Your task to perform on an android device: Open Wikipedia Image 0: 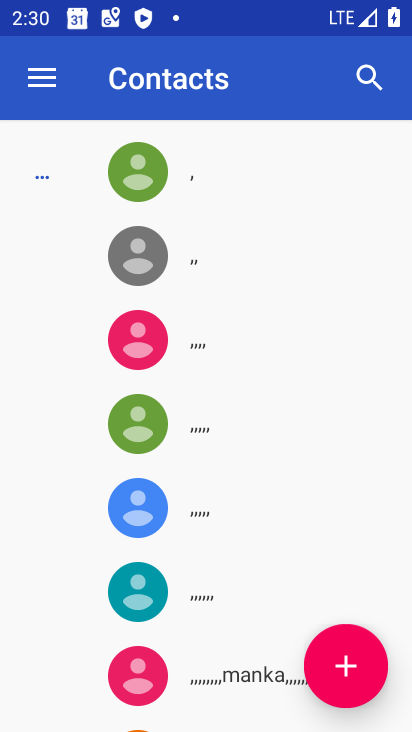
Step 0: press home button
Your task to perform on an android device: Open Wikipedia Image 1: 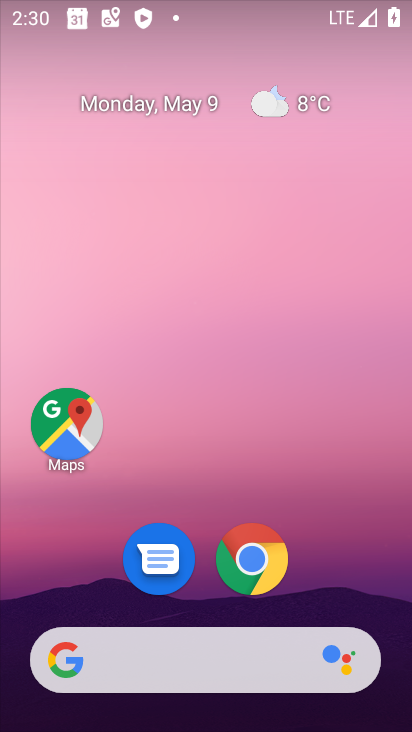
Step 1: click (253, 555)
Your task to perform on an android device: Open Wikipedia Image 2: 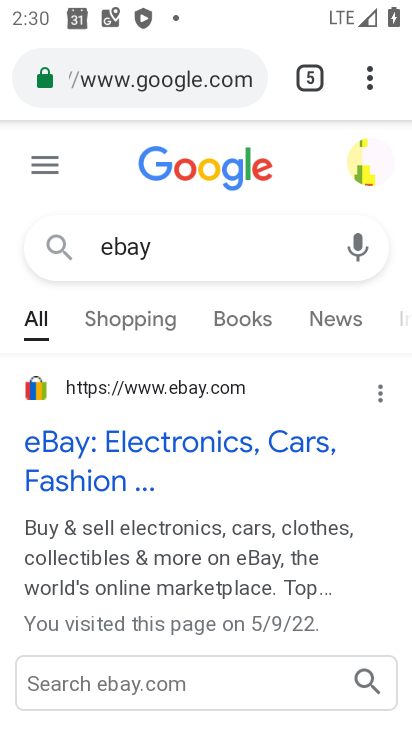
Step 2: click (371, 75)
Your task to perform on an android device: Open Wikipedia Image 3: 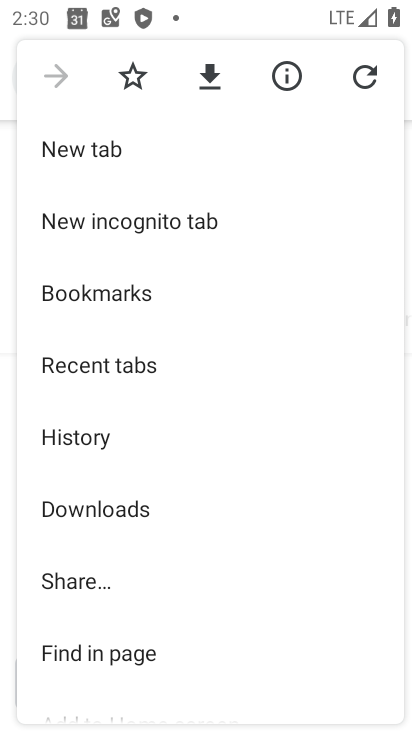
Step 3: click (83, 149)
Your task to perform on an android device: Open Wikipedia Image 4: 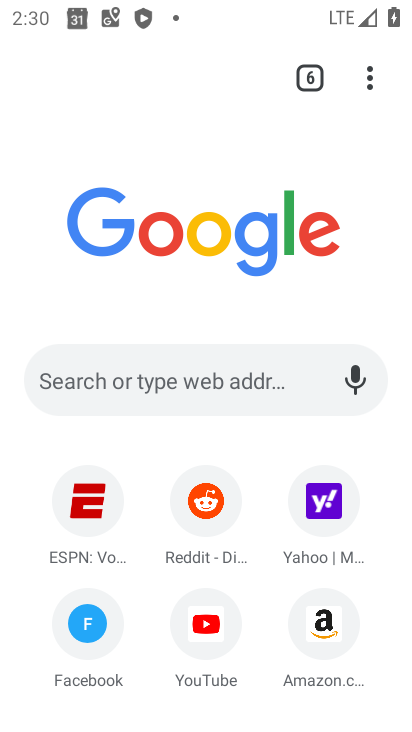
Step 4: drag from (152, 587) to (151, 347)
Your task to perform on an android device: Open Wikipedia Image 5: 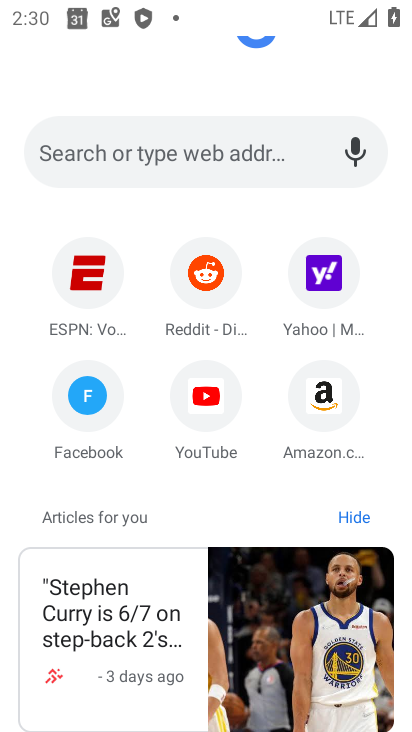
Step 5: click (178, 149)
Your task to perform on an android device: Open Wikipedia Image 6: 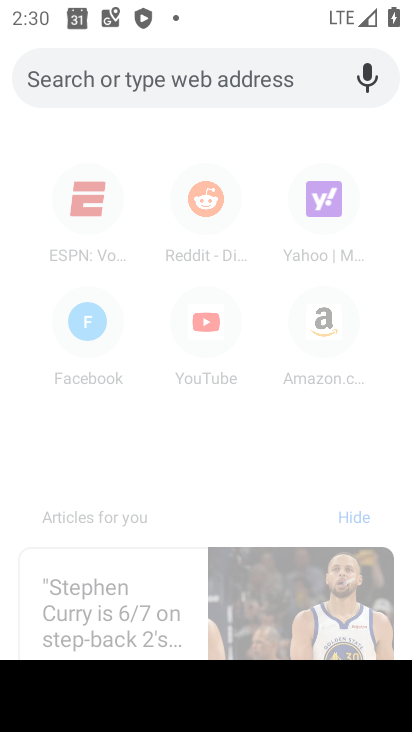
Step 6: type "wikipedia"
Your task to perform on an android device: Open Wikipedia Image 7: 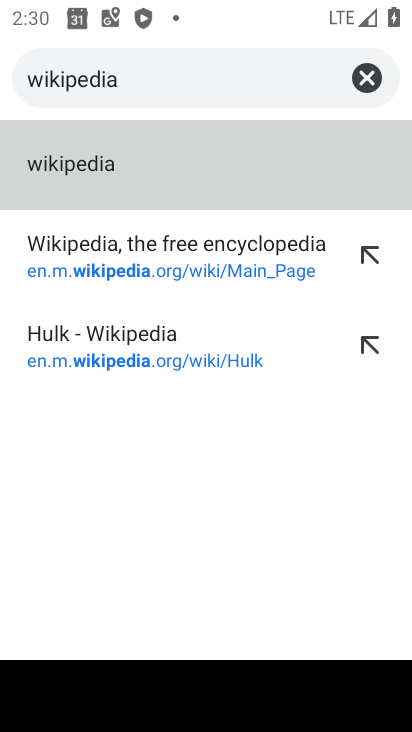
Step 7: click (93, 163)
Your task to perform on an android device: Open Wikipedia Image 8: 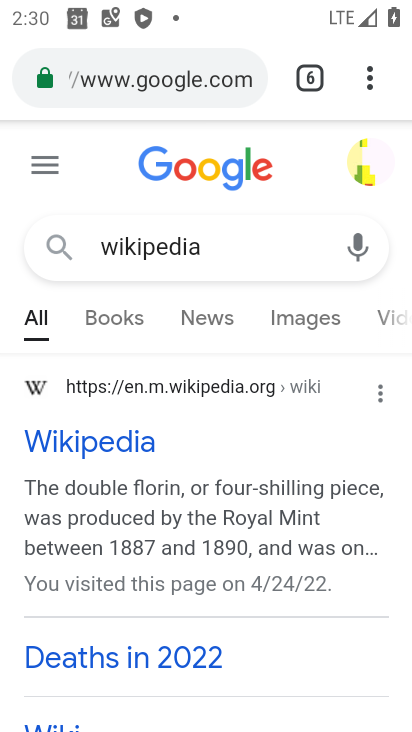
Step 8: click (100, 441)
Your task to perform on an android device: Open Wikipedia Image 9: 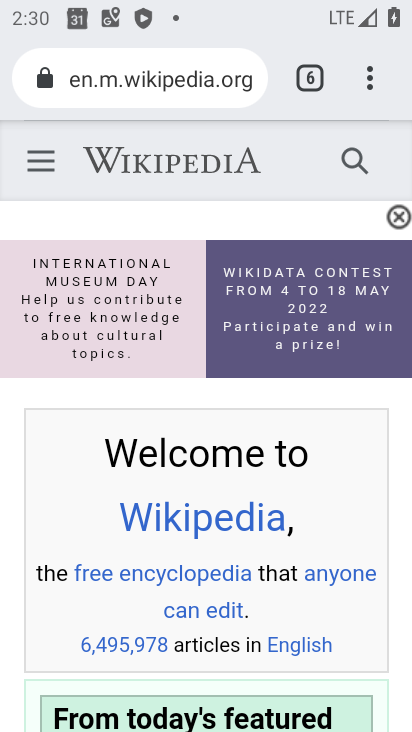
Step 9: task complete